Your task to perform on an android device: read, delete, or share a saved page in the chrome app Image 0: 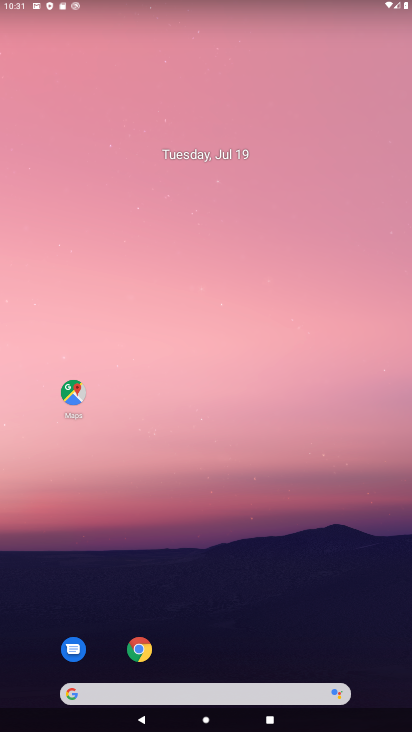
Step 0: click (142, 652)
Your task to perform on an android device: read, delete, or share a saved page in the chrome app Image 1: 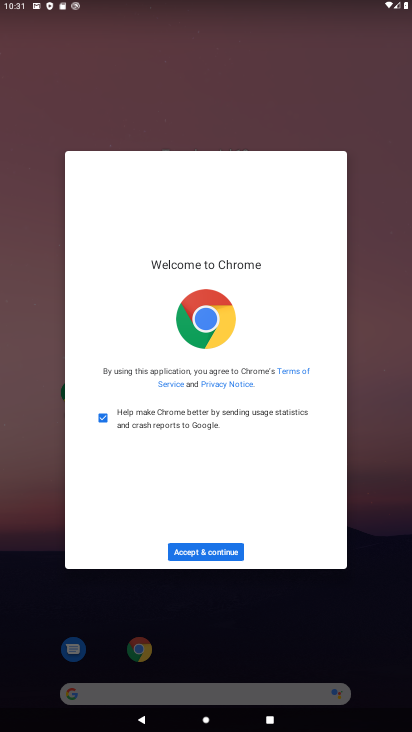
Step 1: click (205, 550)
Your task to perform on an android device: read, delete, or share a saved page in the chrome app Image 2: 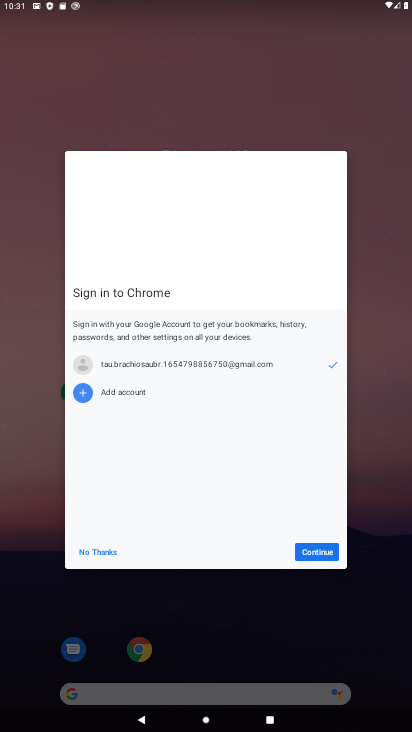
Step 2: click (318, 553)
Your task to perform on an android device: read, delete, or share a saved page in the chrome app Image 3: 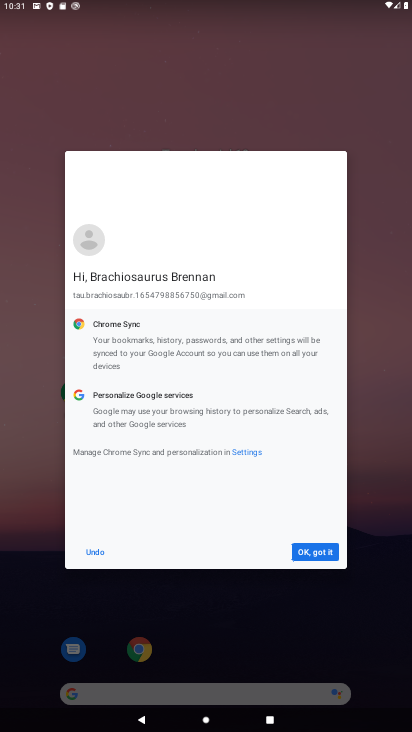
Step 3: click (318, 553)
Your task to perform on an android device: read, delete, or share a saved page in the chrome app Image 4: 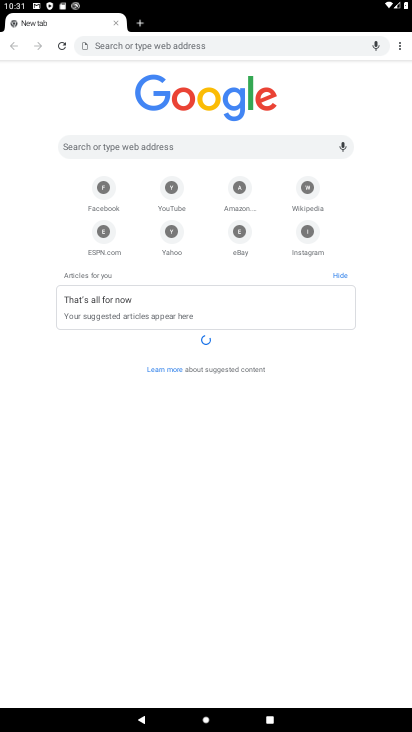
Step 4: click (403, 47)
Your task to perform on an android device: read, delete, or share a saved page in the chrome app Image 5: 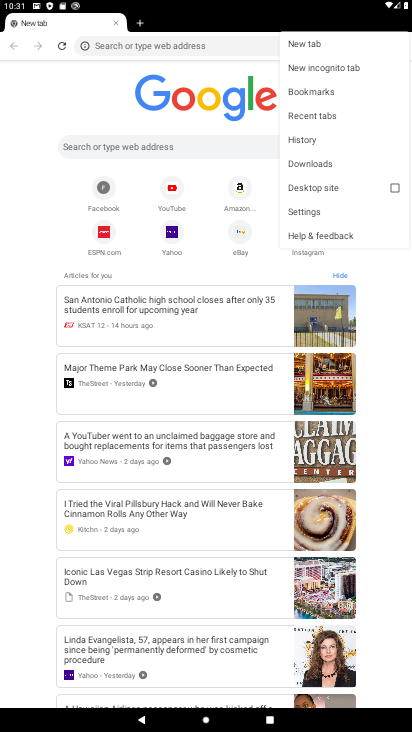
Step 5: click (325, 163)
Your task to perform on an android device: read, delete, or share a saved page in the chrome app Image 6: 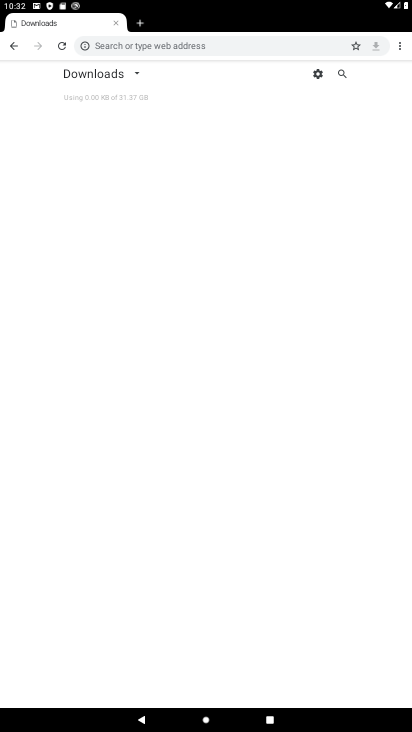
Step 6: click (136, 73)
Your task to perform on an android device: read, delete, or share a saved page in the chrome app Image 7: 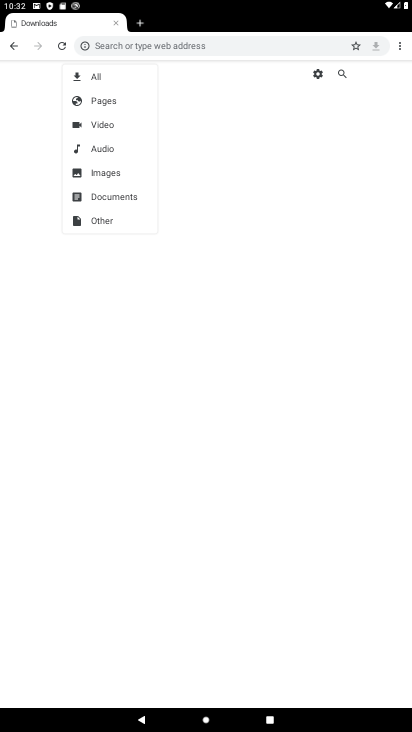
Step 7: click (98, 101)
Your task to perform on an android device: read, delete, or share a saved page in the chrome app Image 8: 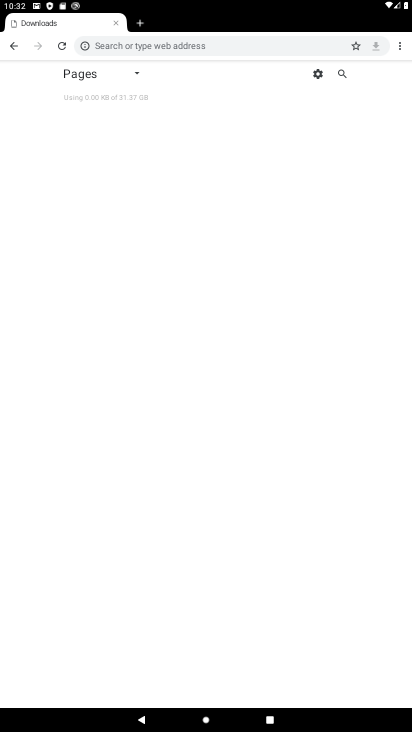
Step 8: task complete